Your task to perform on an android device: Go to ESPN.com Image 0: 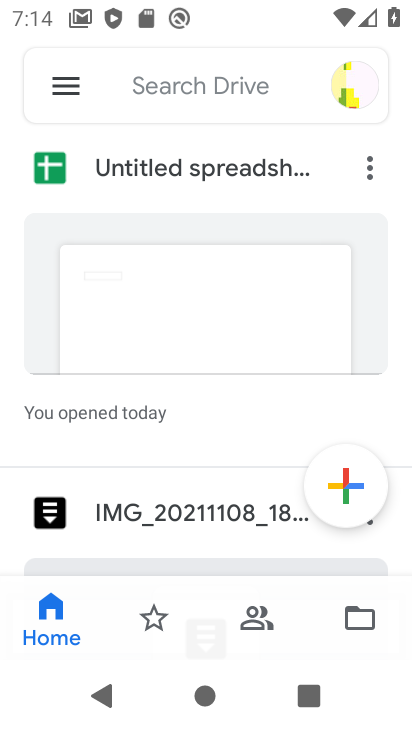
Step 0: press back button
Your task to perform on an android device: Go to ESPN.com Image 1: 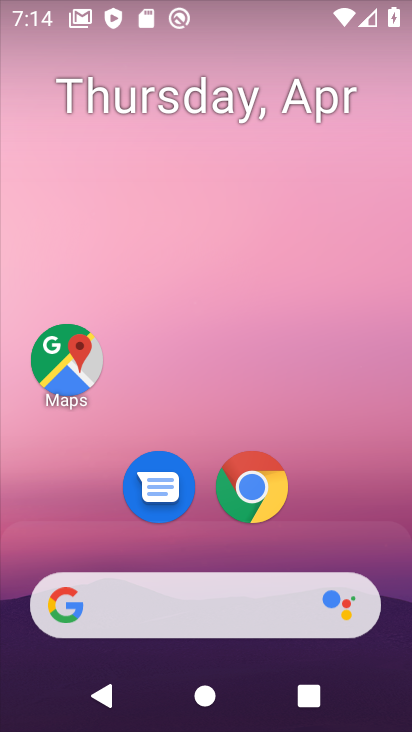
Step 1: click (266, 508)
Your task to perform on an android device: Go to ESPN.com Image 2: 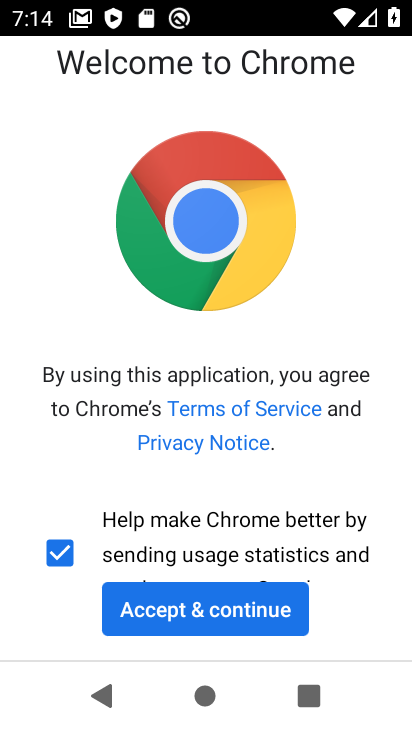
Step 2: click (226, 601)
Your task to perform on an android device: Go to ESPN.com Image 3: 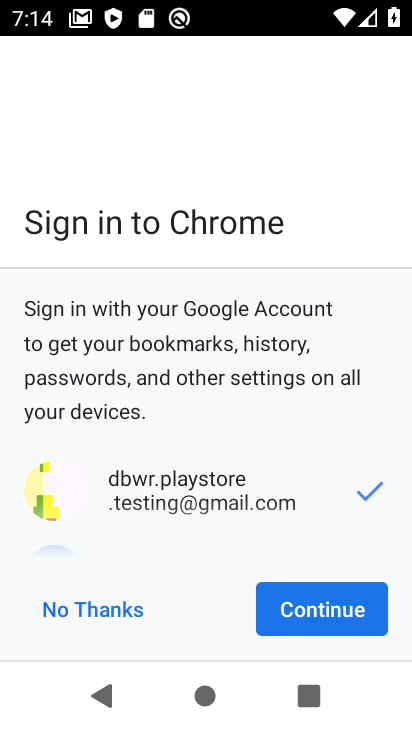
Step 3: click (322, 607)
Your task to perform on an android device: Go to ESPN.com Image 4: 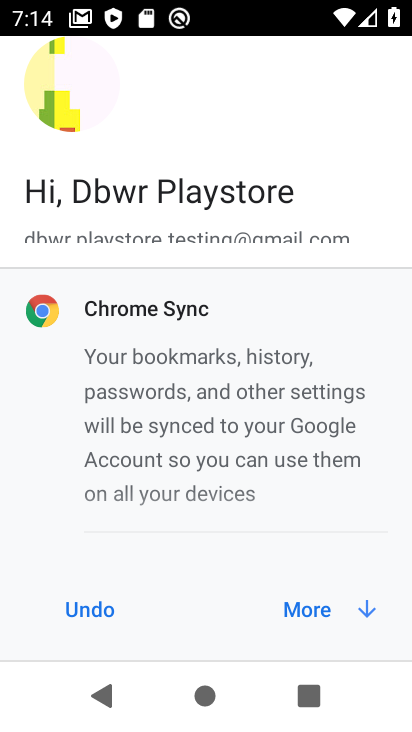
Step 4: click (322, 607)
Your task to perform on an android device: Go to ESPN.com Image 5: 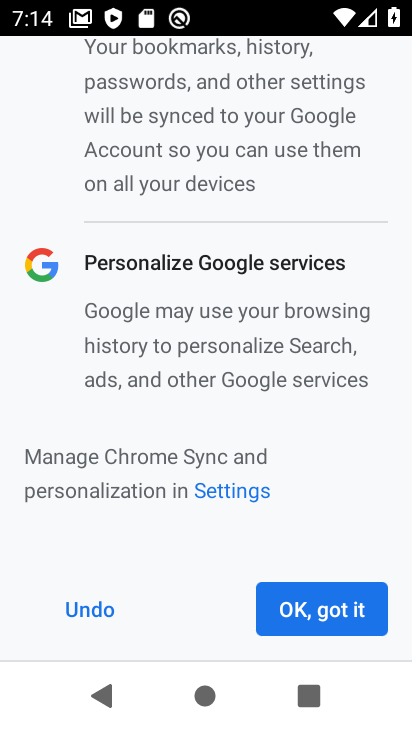
Step 5: click (322, 607)
Your task to perform on an android device: Go to ESPN.com Image 6: 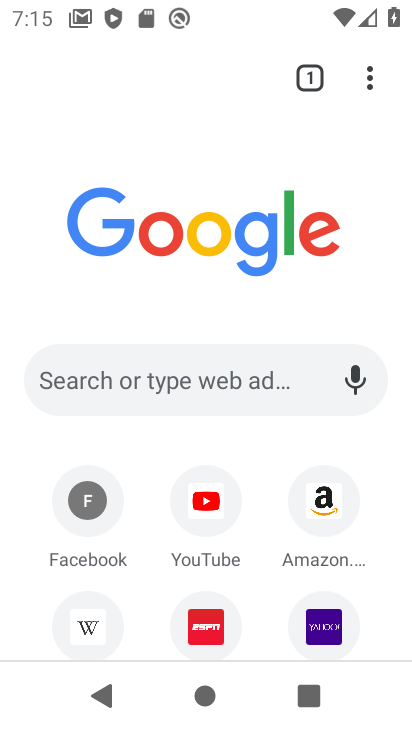
Step 6: click (206, 643)
Your task to perform on an android device: Go to ESPN.com Image 7: 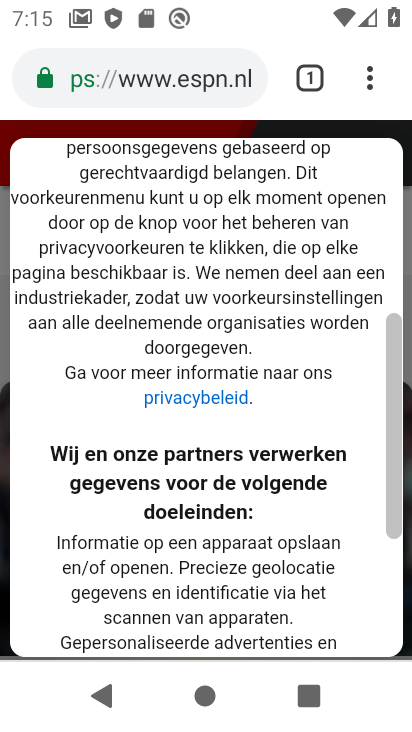
Step 7: task complete